Your task to perform on an android device: turn on translation in the chrome app Image 0: 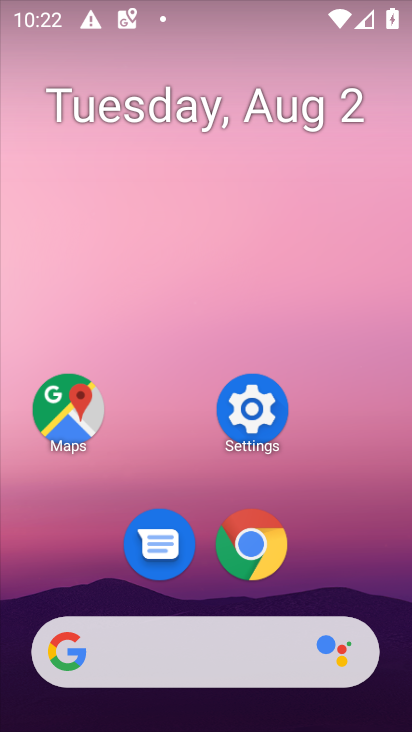
Step 0: click (259, 540)
Your task to perform on an android device: turn on translation in the chrome app Image 1: 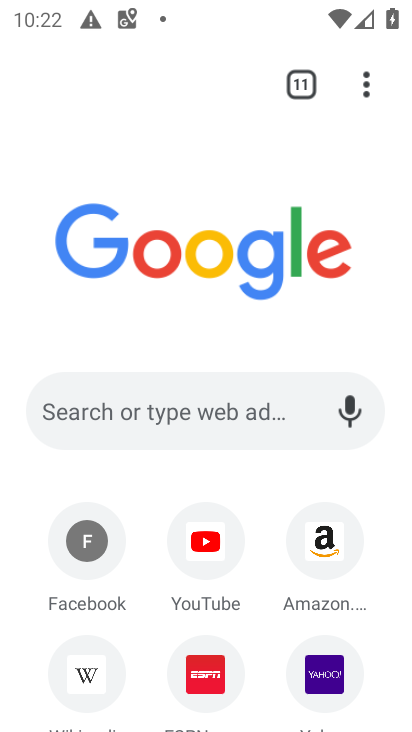
Step 1: drag from (366, 79) to (157, 598)
Your task to perform on an android device: turn on translation in the chrome app Image 2: 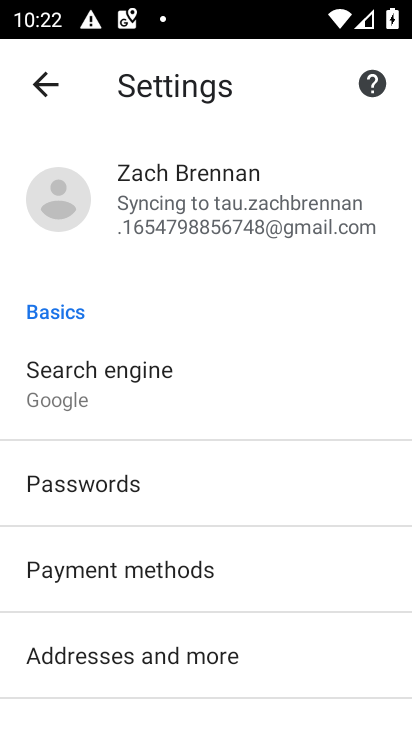
Step 2: drag from (267, 663) to (359, 147)
Your task to perform on an android device: turn on translation in the chrome app Image 3: 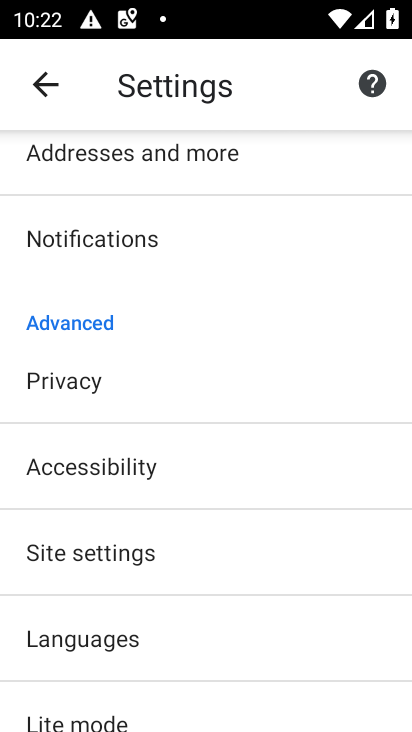
Step 3: click (124, 627)
Your task to perform on an android device: turn on translation in the chrome app Image 4: 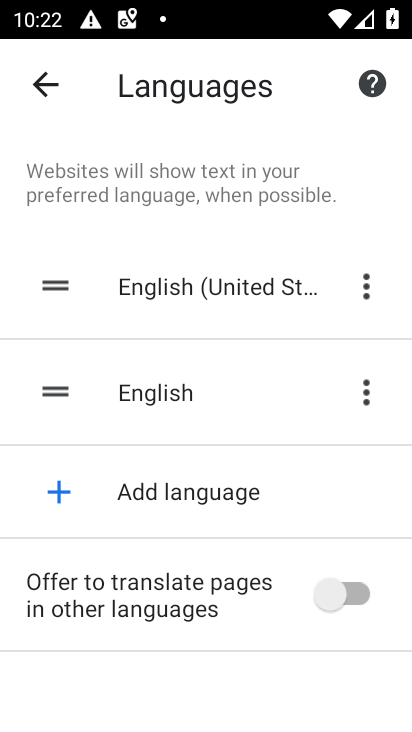
Step 4: click (349, 595)
Your task to perform on an android device: turn on translation in the chrome app Image 5: 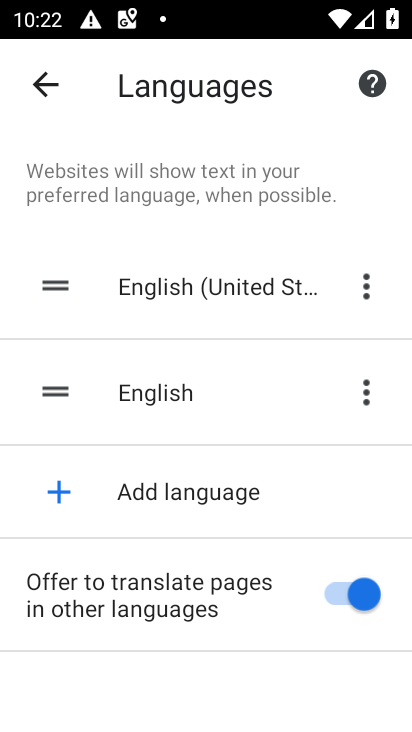
Step 5: task complete